Your task to perform on an android device: toggle location history Image 0: 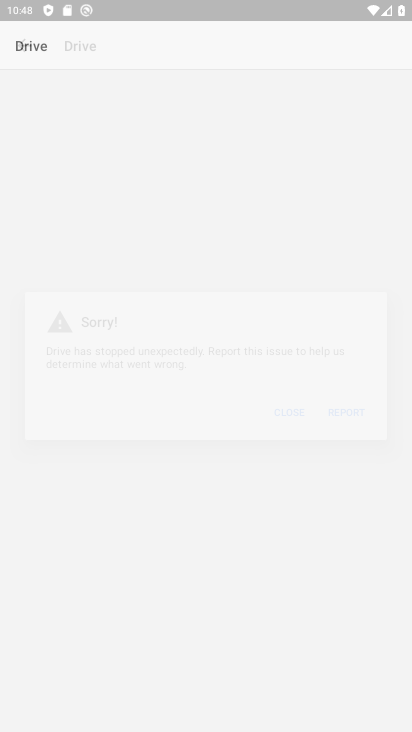
Step 0: click (127, 627)
Your task to perform on an android device: toggle location history Image 1: 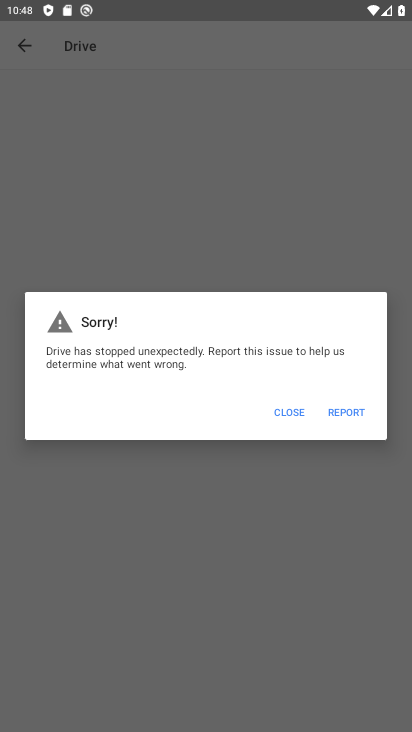
Step 1: press home button
Your task to perform on an android device: toggle location history Image 2: 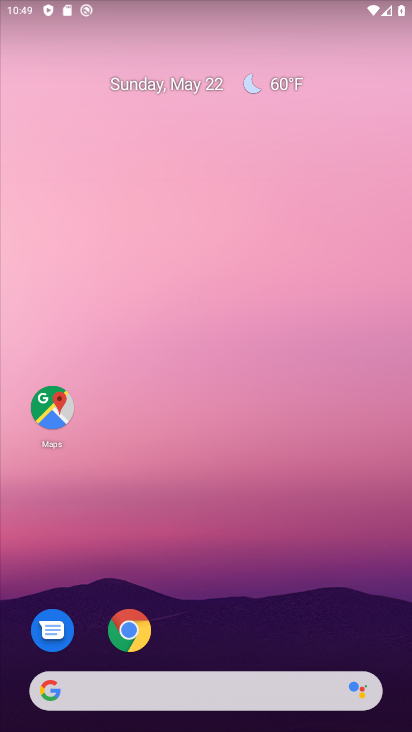
Step 2: drag from (260, 588) to (239, 163)
Your task to perform on an android device: toggle location history Image 3: 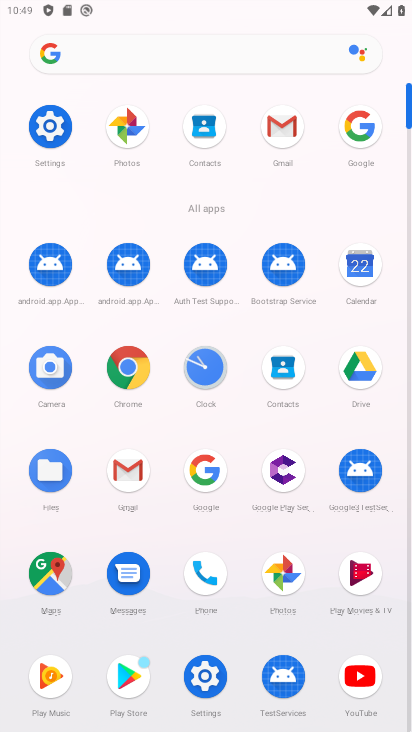
Step 3: click (48, 127)
Your task to perform on an android device: toggle location history Image 4: 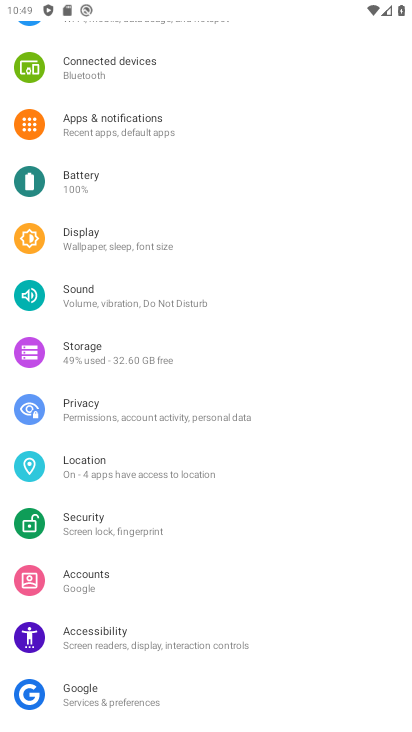
Step 4: click (132, 479)
Your task to perform on an android device: toggle location history Image 5: 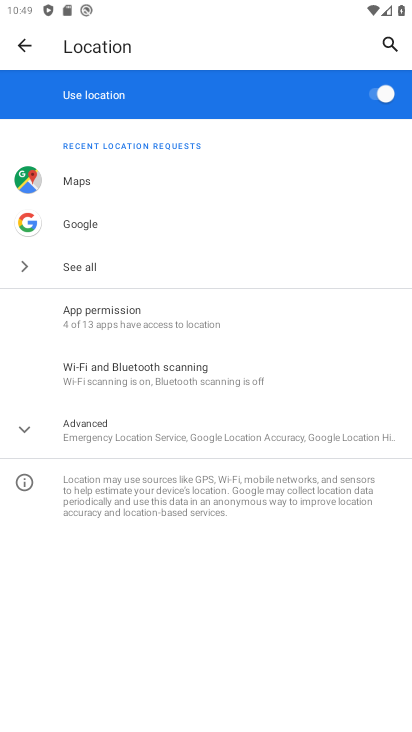
Step 5: click (149, 441)
Your task to perform on an android device: toggle location history Image 6: 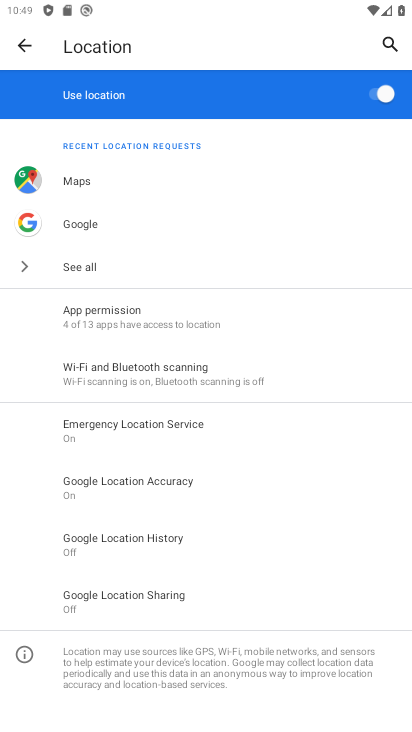
Step 6: click (94, 539)
Your task to perform on an android device: toggle location history Image 7: 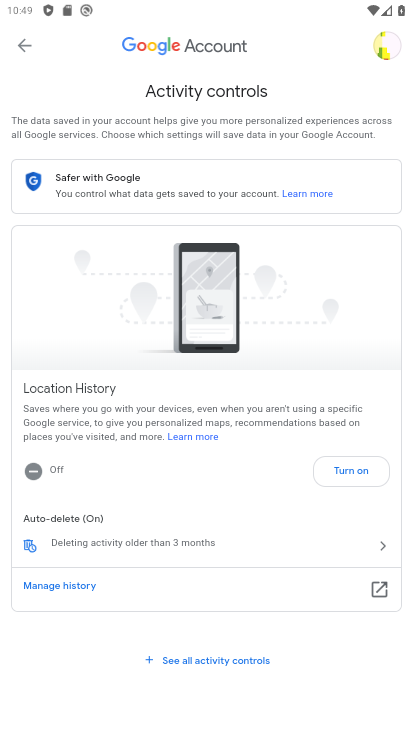
Step 7: click (345, 473)
Your task to perform on an android device: toggle location history Image 8: 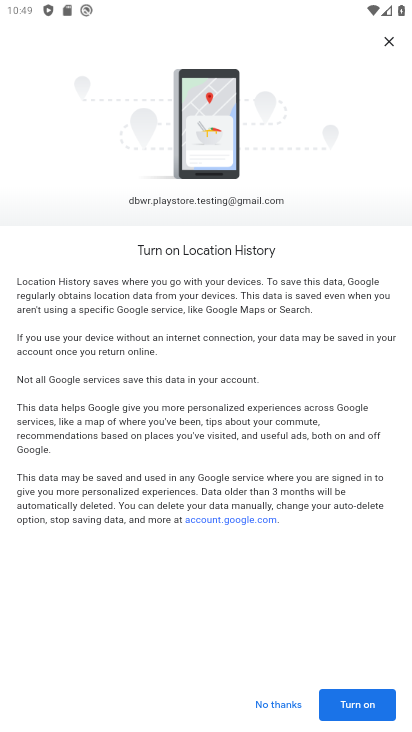
Step 8: click (358, 706)
Your task to perform on an android device: toggle location history Image 9: 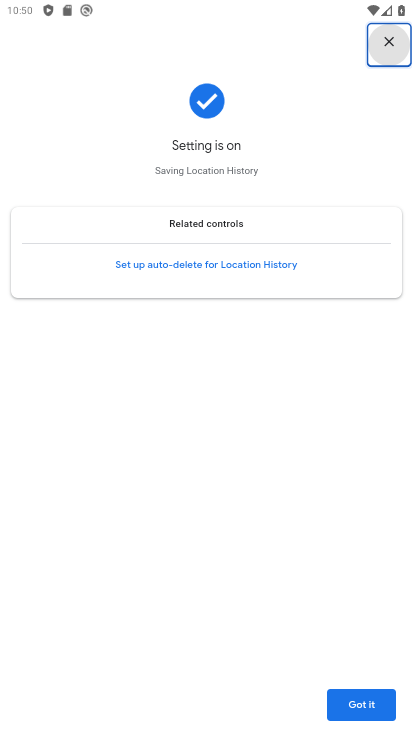
Step 9: click (358, 706)
Your task to perform on an android device: toggle location history Image 10: 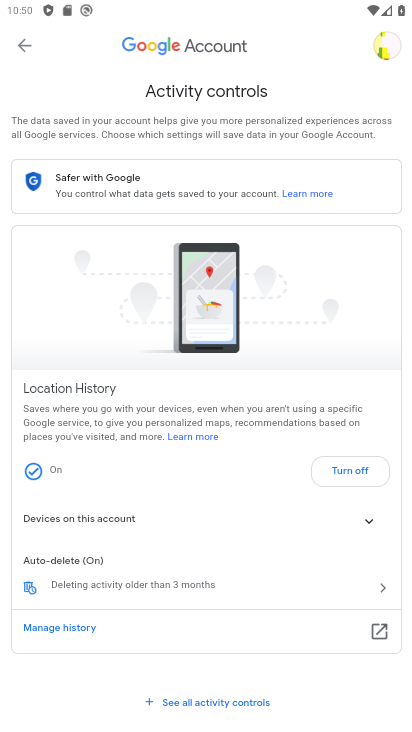
Step 10: task complete